Your task to perform on an android device: Open internet settings Image 0: 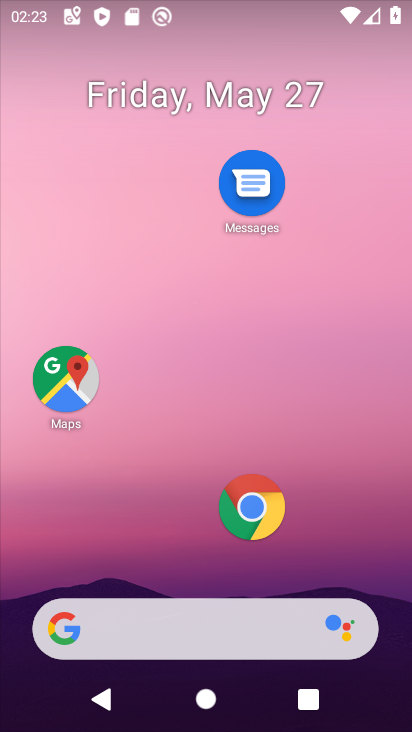
Step 0: drag from (212, 538) to (215, 135)
Your task to perform on an android device: Open internet settings Image 1: 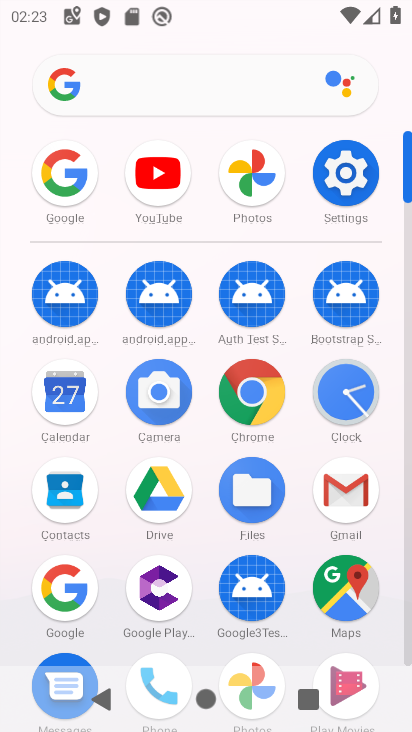
Step 1: click (355, 178)
Your task to perform on an android device: Open internet settings Image 2: 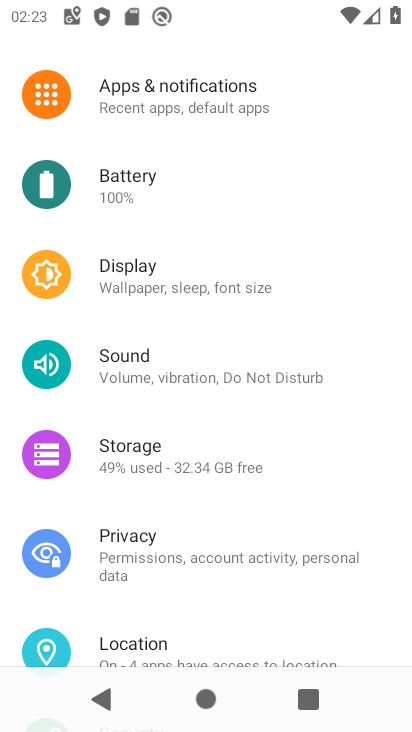
Step 2: drag from (166, 160) to (265, 701)
Your task to perform on an android device: Open internet settings Image 3: 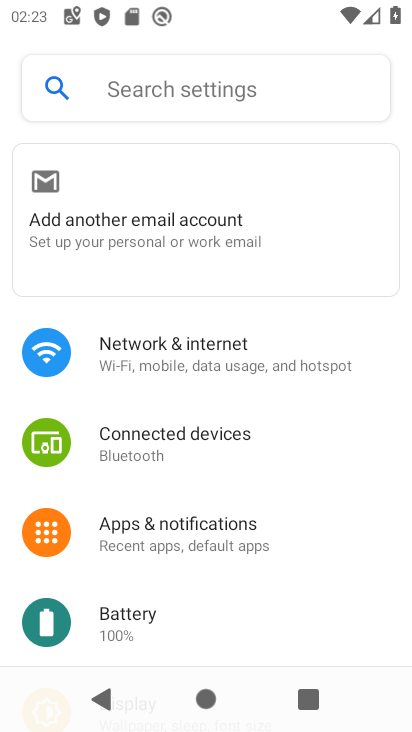
Step 3: click (134, 358)
Your task to perform on an android device: Open internet settings Image 4: 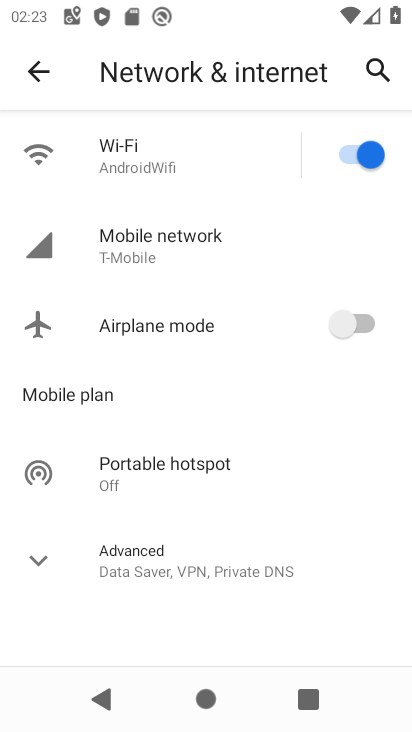
Step 4: task complete